Your task to perform on an android device: Open Google Chrome Image 0: 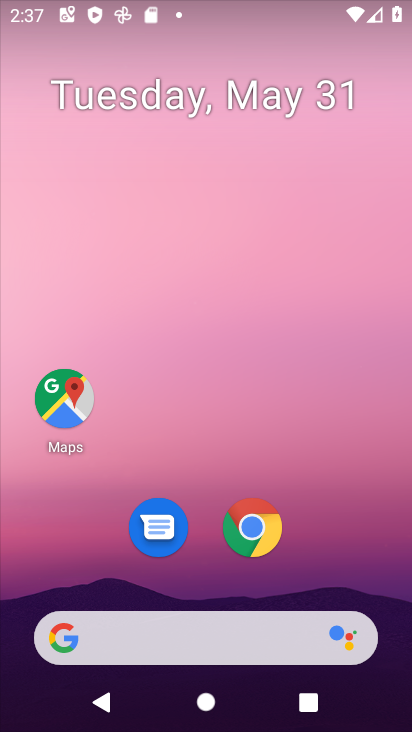
Step 0: drag from (369, 504) to (295, 47)
Your task to perform on an android device: Open Google Chrome Image 1: 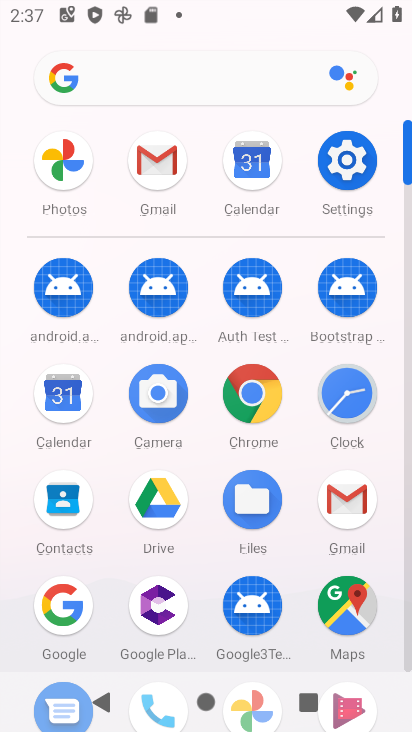
Step 1: click (261, 402)
Your task to perform on an android device: Open Google Chrome Image 2: 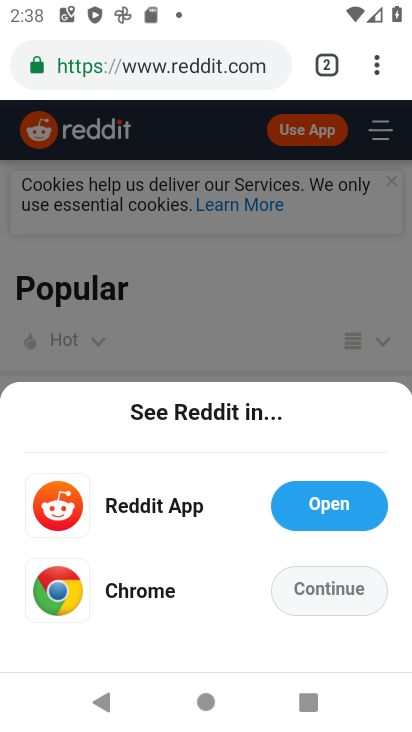
Step 2: task complete